Your task to perform on an android device: Open the web browser Image 0: 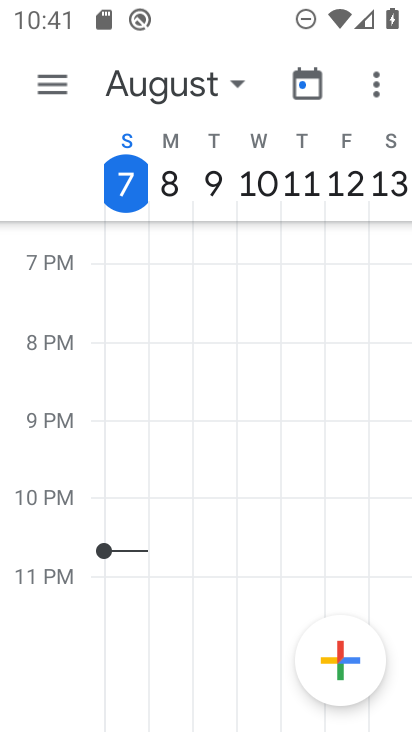
Step 0: press home button
Your task to perform on an android device: Open the web browser Image 1: 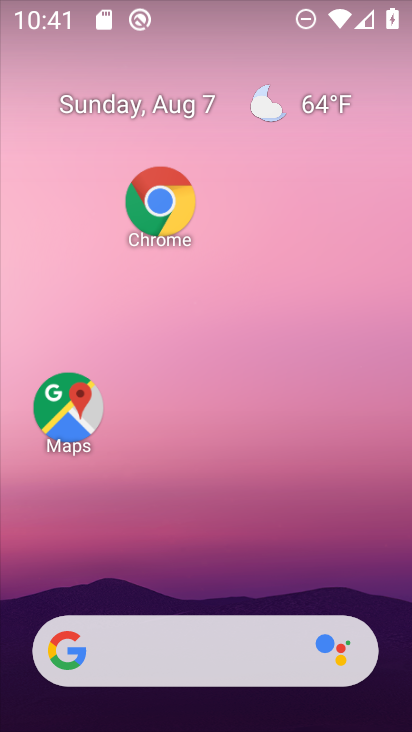
Step 1: click (151, 644)
Your task to perform on an android device: Open the web browser Image 2: 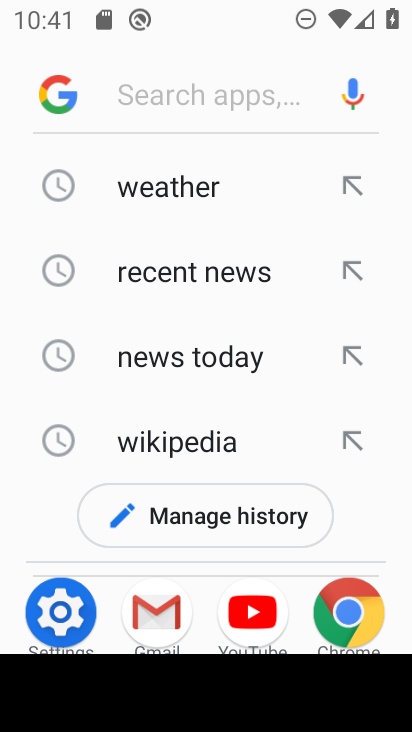
Step 2: task complete